Your task to perform on an android device: Open Chrome and go to settings Image 0: 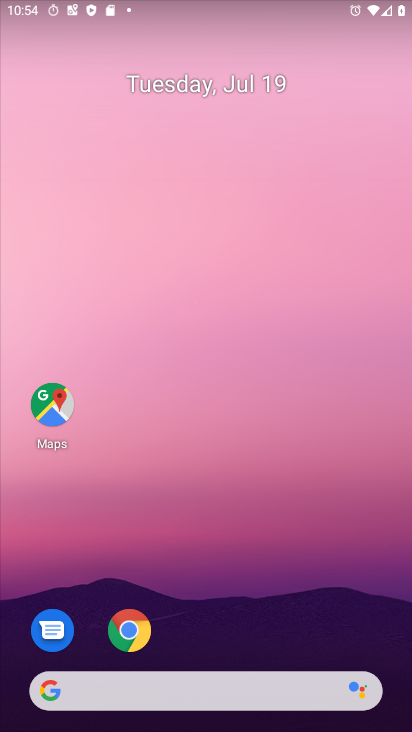
Step 0: click (131, 631)
Your task to perform on an android device: Open Chrome and go to settings Image 1: 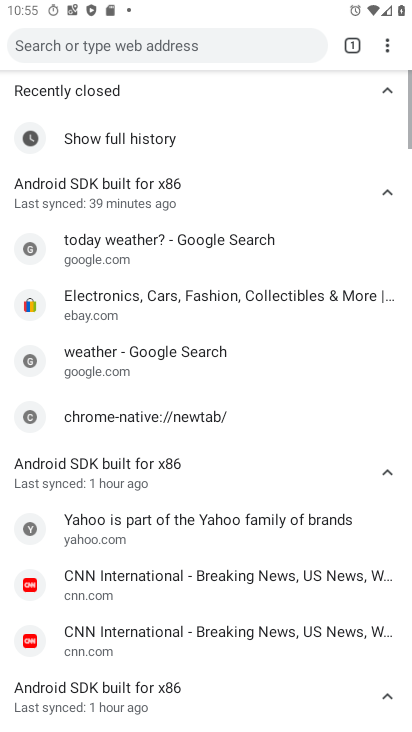
Step 1: task complete